Your task to perform on an android device: check data usage Image 0: 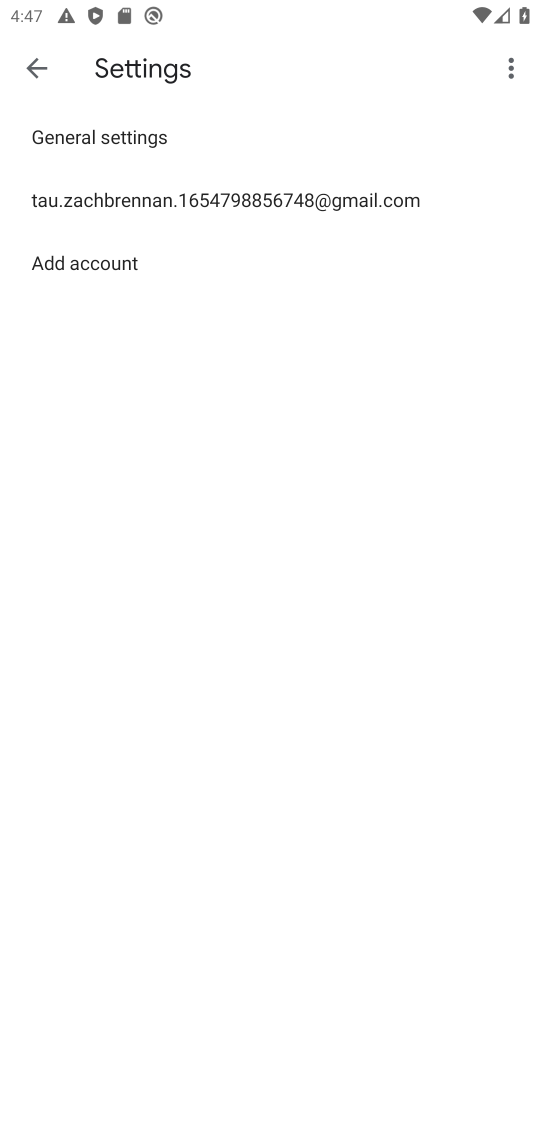
Step 0: press home button
Your task to perform on an android device: check data usage Image 1: 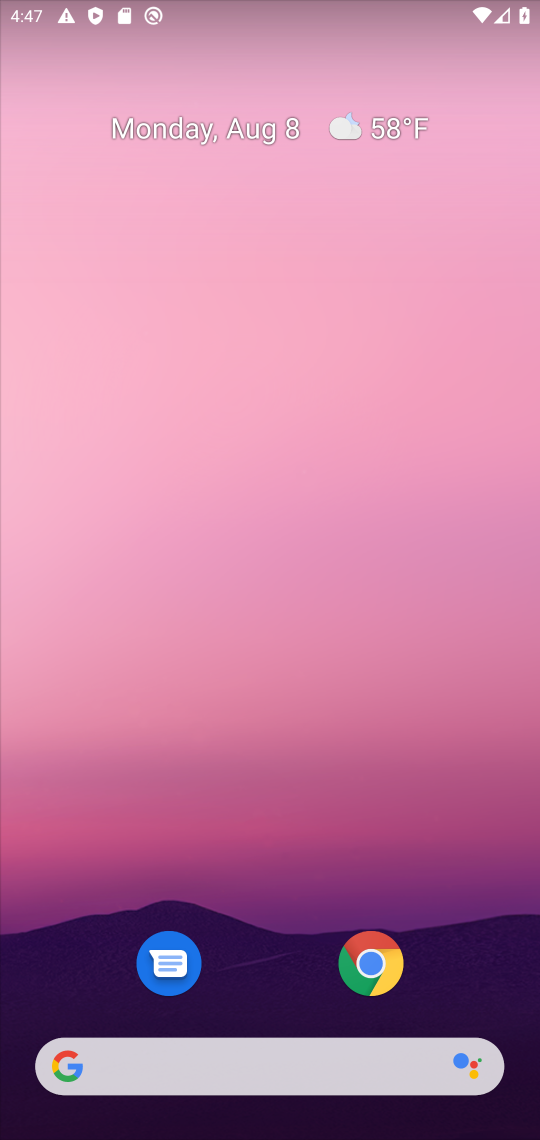
Step 1: drag from (262, 818) to (301, 21)
Your task to perform on an android device: check data usage Image 2: 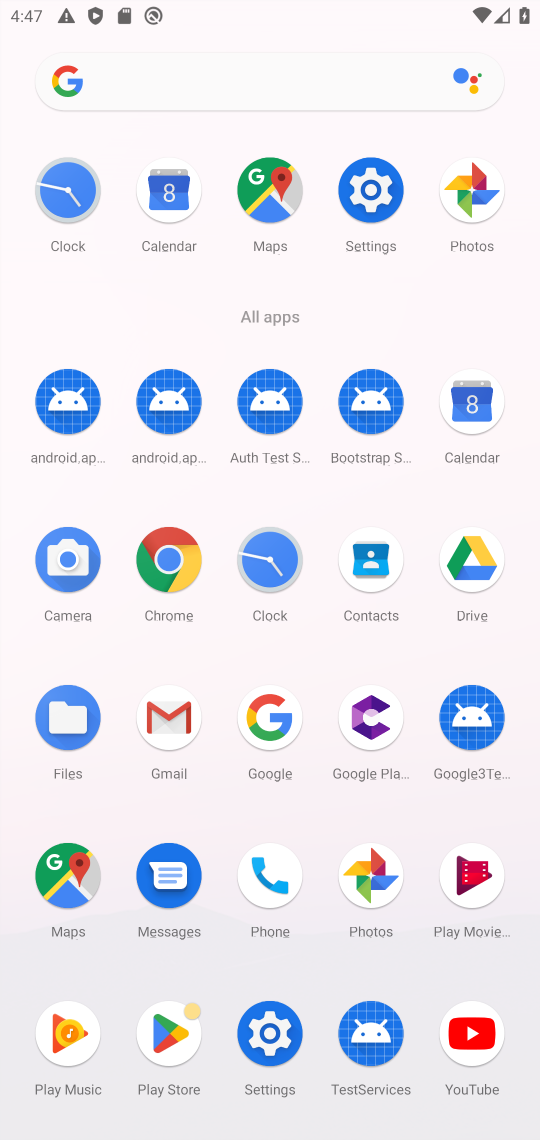
Step 2: click (359, 177)
Your task to perform on an android device: check data usage Image 3: 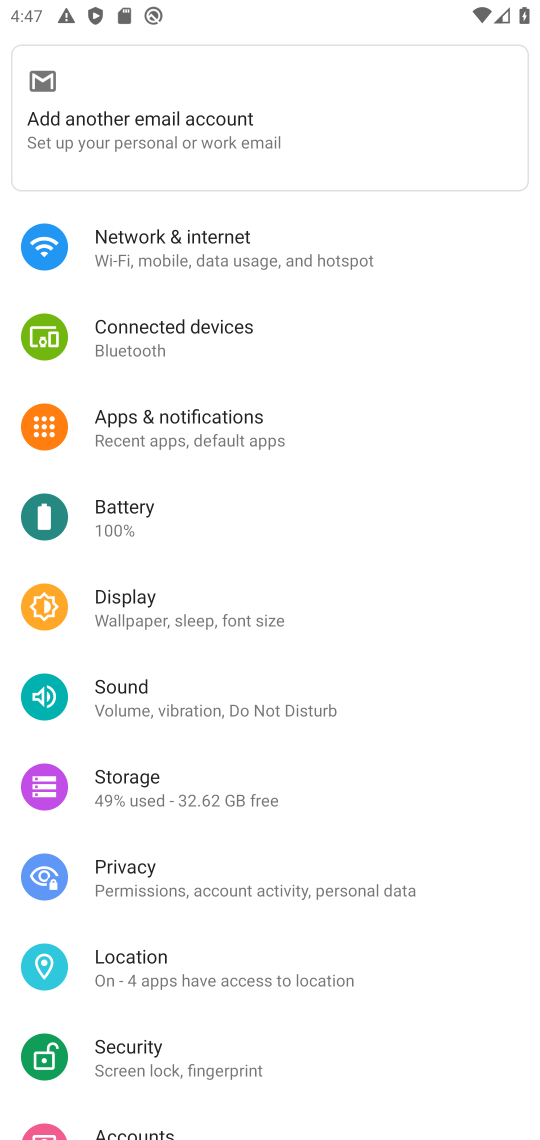
Step 3: click (186, 247)
Your task to perform on an android device: check data usage Image 4: 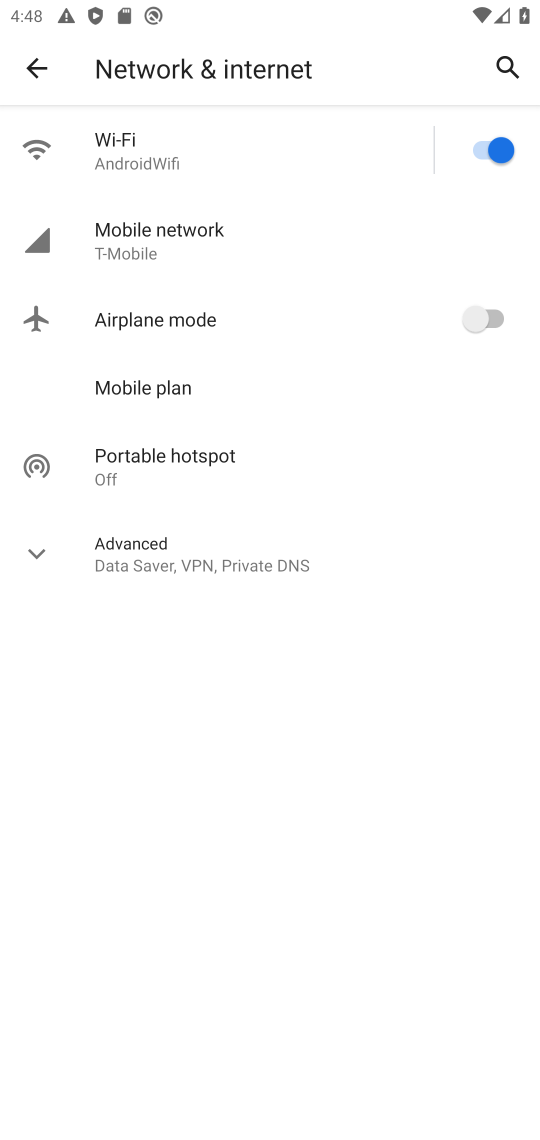
Step 4: click (186, 238)
Your task to perform on an android device: check data usage Image 5: 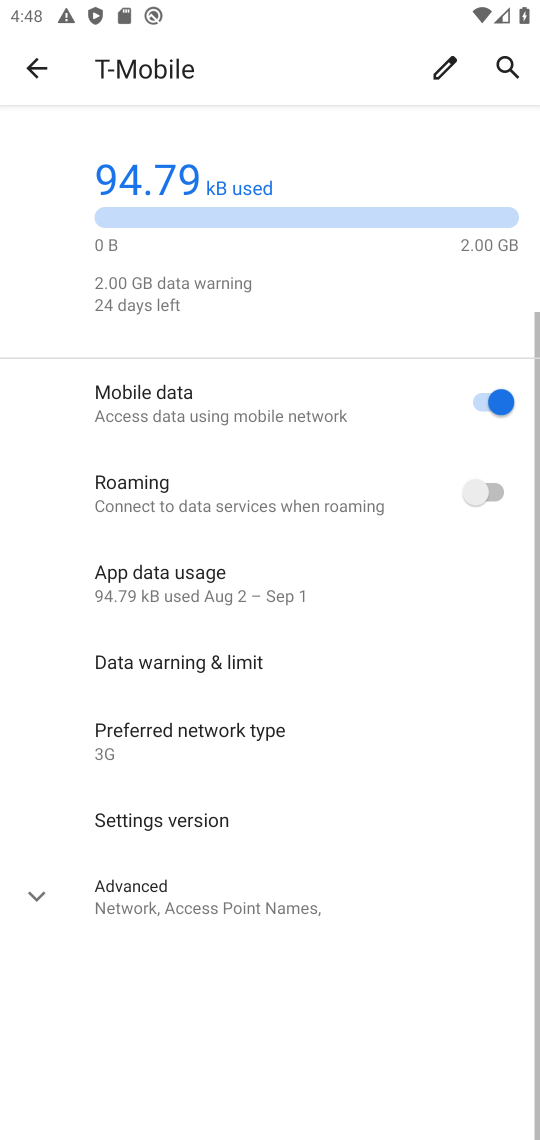
Step 5: click (200, 586)
Your task to perform on an android device: check data usage Image 6: 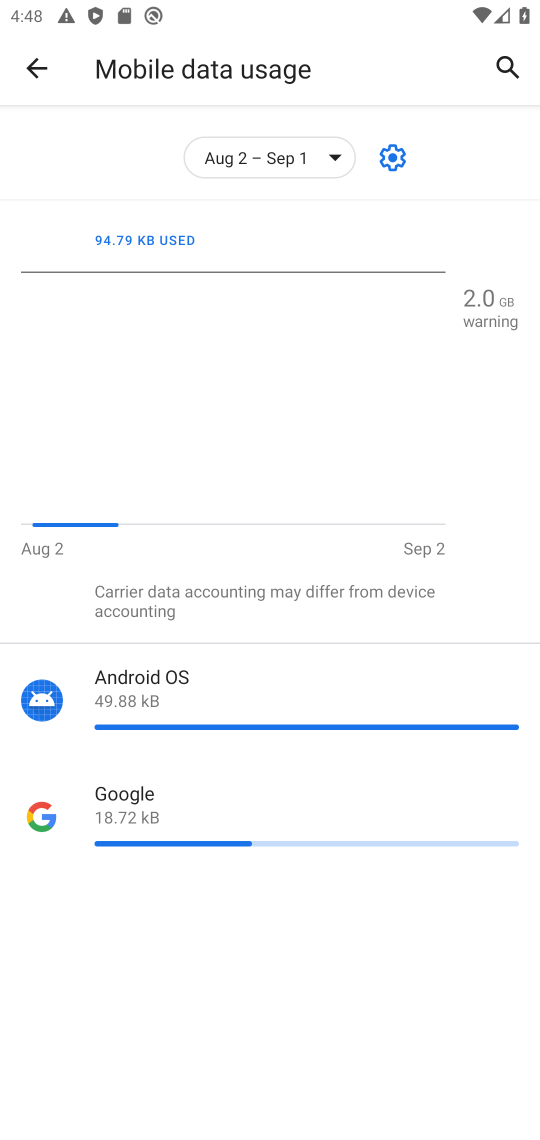
Step 6: task complete